Your task to perform on an android device: Open Amazon Image 0: 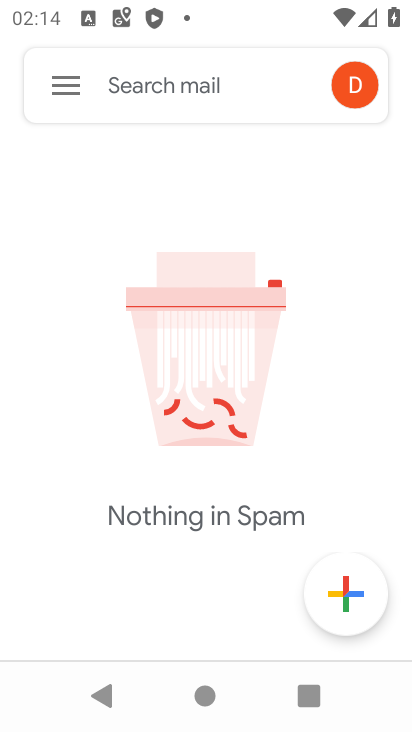
Step 0: press home button
Your task to perform on an android device: Open Amazon Image 1: 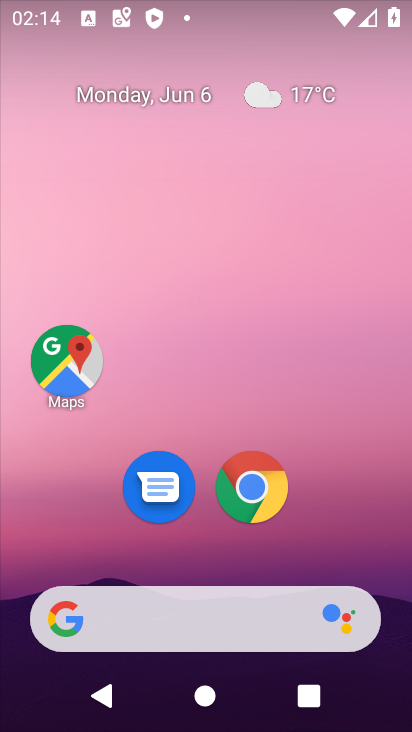
Step 1: click (254, 481)
Your task to perform on an android device: Open Amazon Image 2: 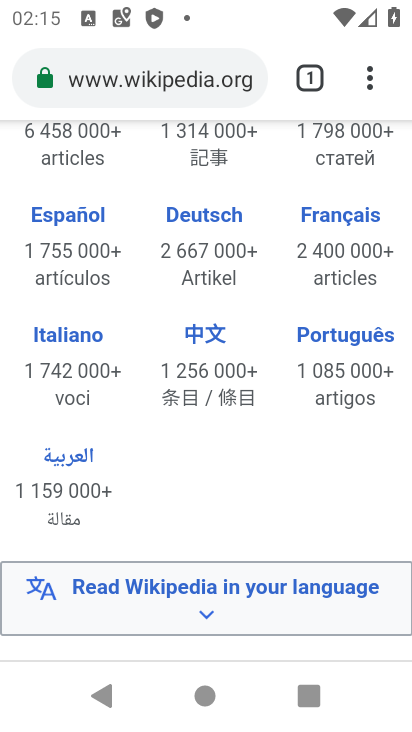
Step 2: click (229, 57)
Your task to perform on an android device: Open Amazon Image 3: 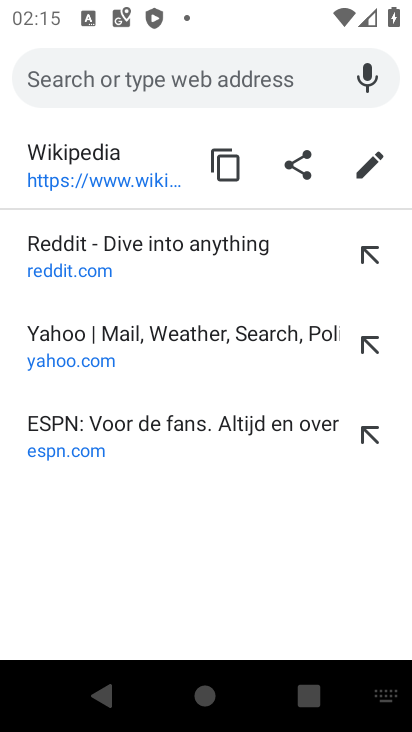
Step 3: type "amazon"
Your task to perform on an android device: Open Amazon Image 4: 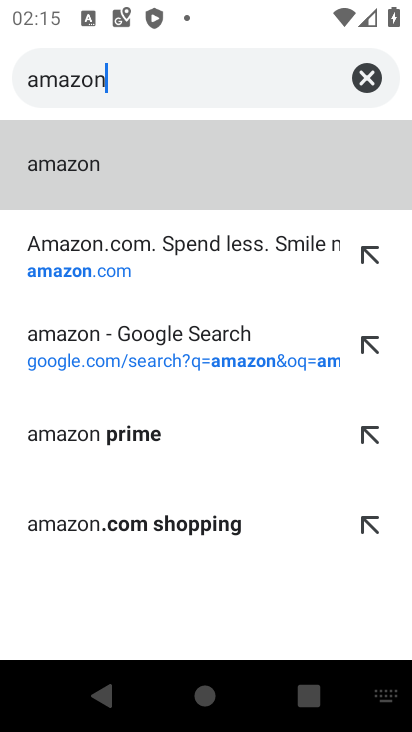
Step 4: click (53, 250)
Your task to perform on an android device: Open Amazon Image 5: 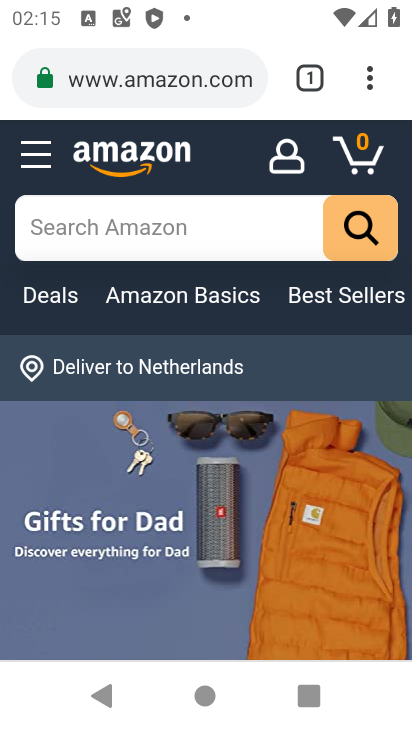
Step 5: task complete